Your task to perform on an android device: Check the news Image 0: 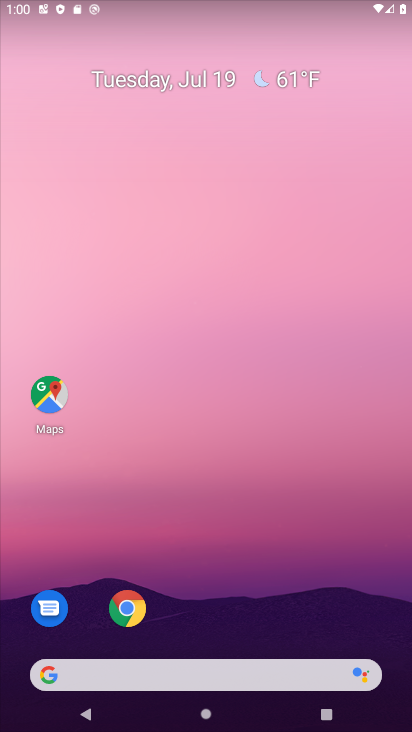
Step 0: drag from (310, 607) to (358, 80)
Your task to perform on an android device: Check the news Image 1: 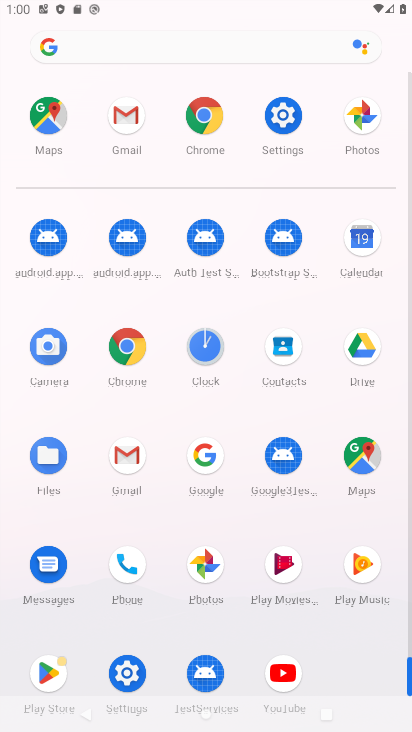
Step 1: click (205, 111)
Your task to perform on an android device: Check the news Image 2: 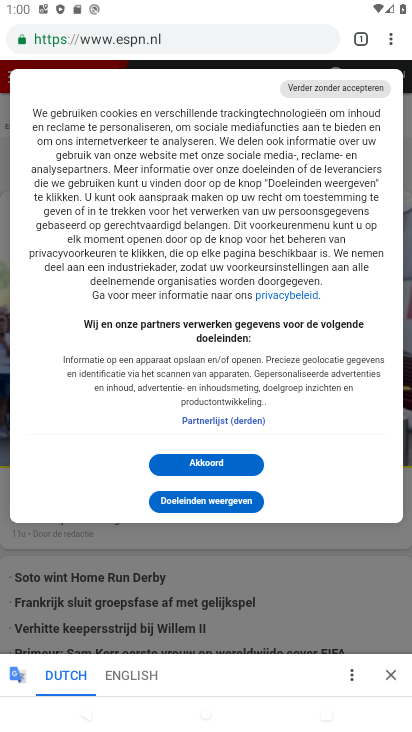
Step 2: task complete